Your task to perform on an android device: toggle notification dots Image 0: 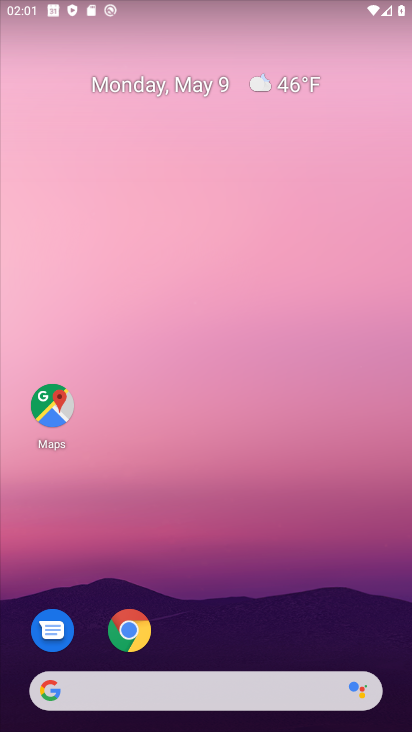
Step 0: press back button
Your task to perform on an android device: toggle notification dots Image 1: 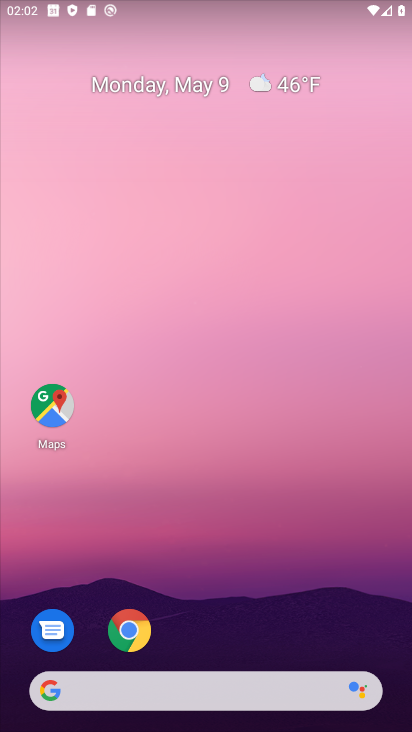
Step 1: drag from (231, 578) to (190, 70)
Your task to perform on an android device: toggle notification dots Image 2: 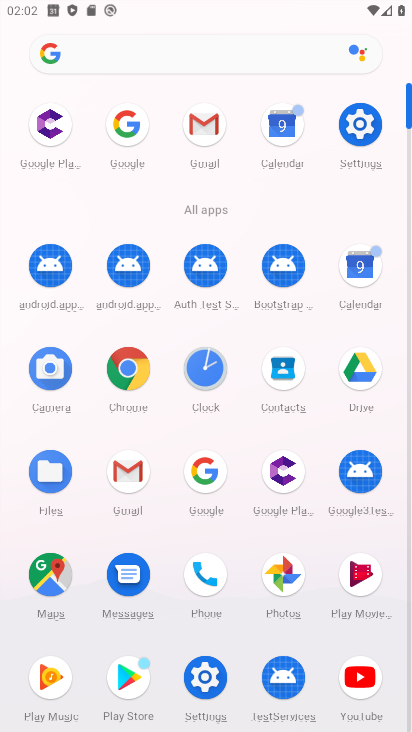
Step 2: click (360, 128)
Your task to perform on an android device: toggle notification dots Image 3: 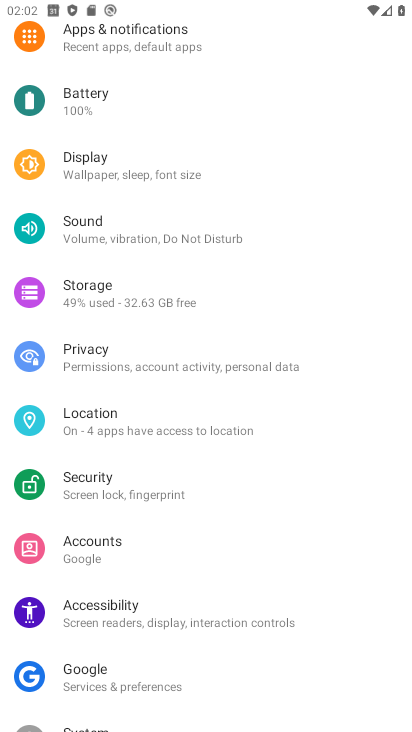
Step 3: drag from (126, 141) to (164, 274)
Your task to perform on an android device: toggle notification dots Image 4: 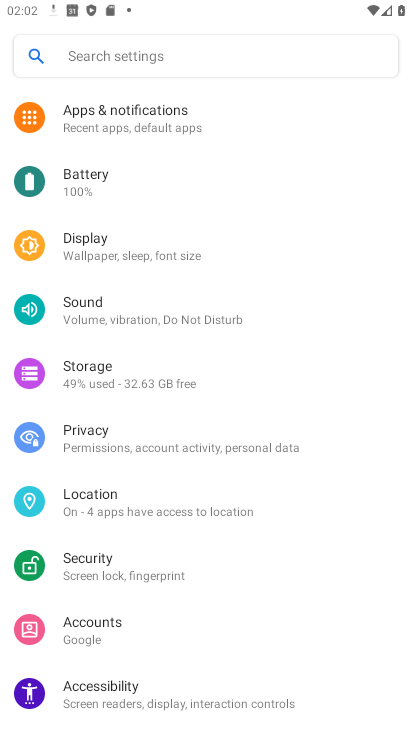
Step 4: click (150, 107)
Your task to perform on an android device: toggle notification dots Image 5: 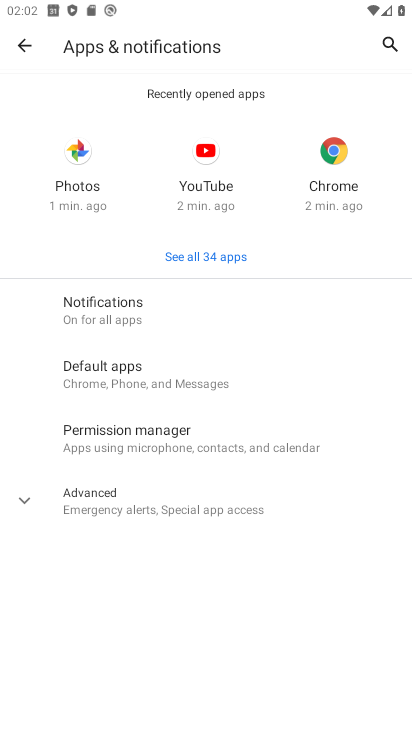
Step 5: click (134, 314)
Your task to perform on an android device: toggle notification dots Image 6: 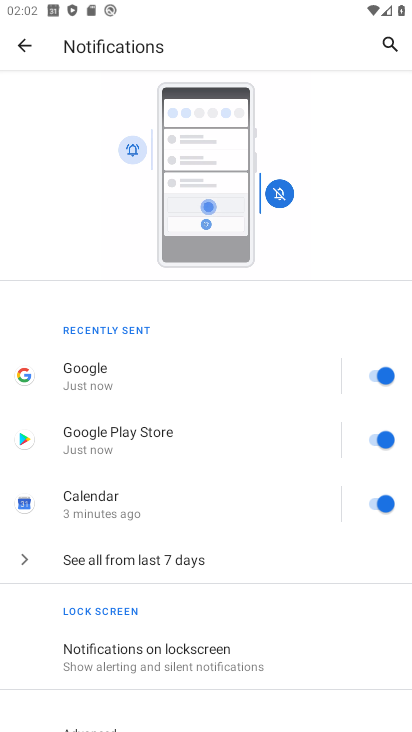
Step 6: drag from (186, 617) to (220, 484)
Your task to perform on an android device: toggle notification dots Image 7: 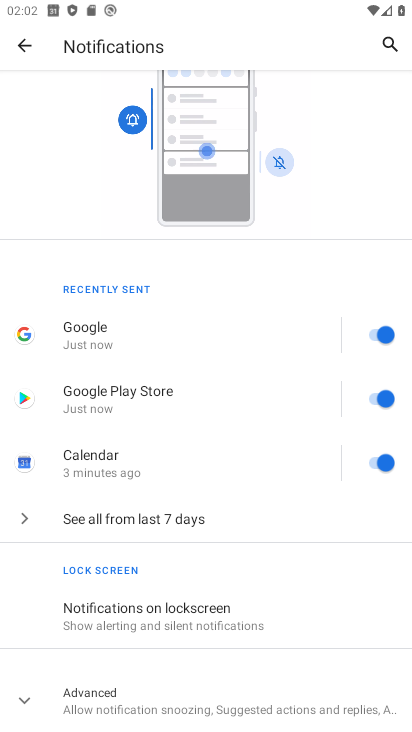
Step 7: click (116, 711)
Your task to perform on an android device: toggle notification dots Image 8: 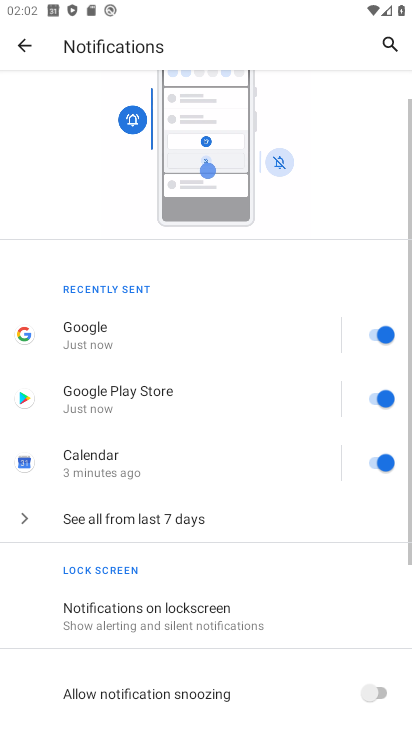
Step 8: drag from (138, 670) to (204, 535)
Your task to perform on an android device: toggle notification dots Image 9: 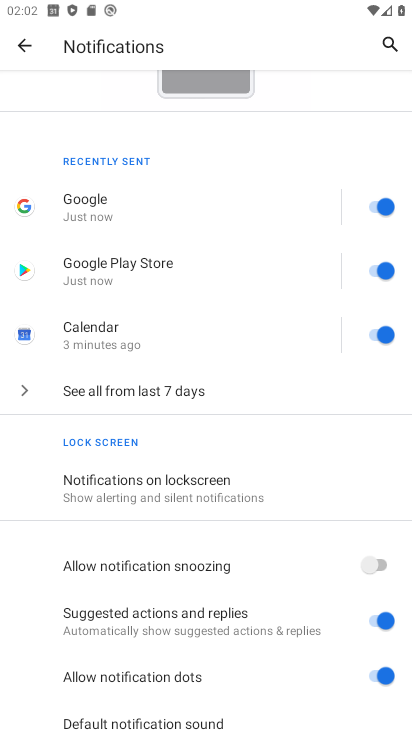
Step 9: drag from (177, 586) to (258, 465)
Your task to perform on an android device: toggle notification dots Image 10: 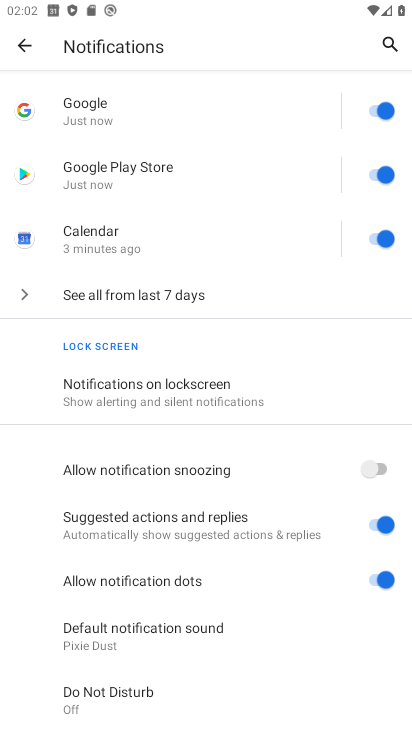
Step 10: click (382, 584)
Your task to perform on an android device: toggle notification dots Image 11: 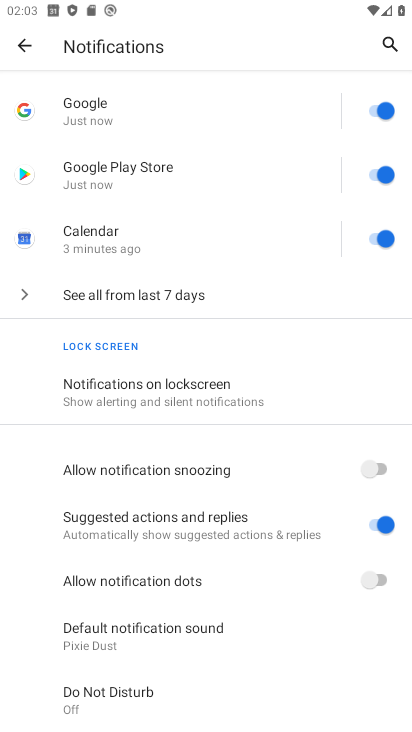
Step 11: task complete